Your task to perform on an android device: Go to location settings Image 0: 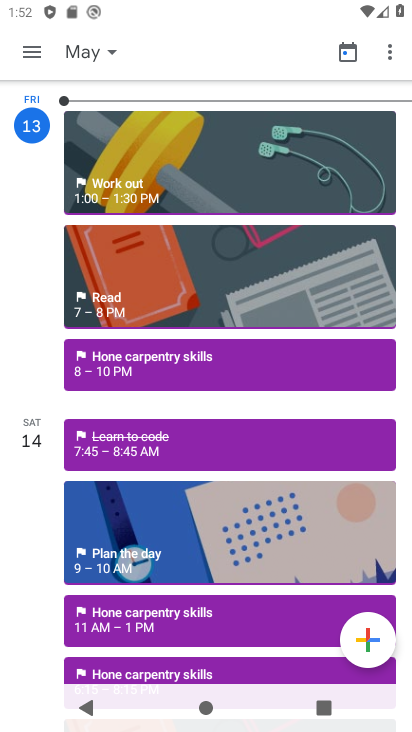
Step 0: press home button
Your task to perform on an android device: Go to location settings Image 1: 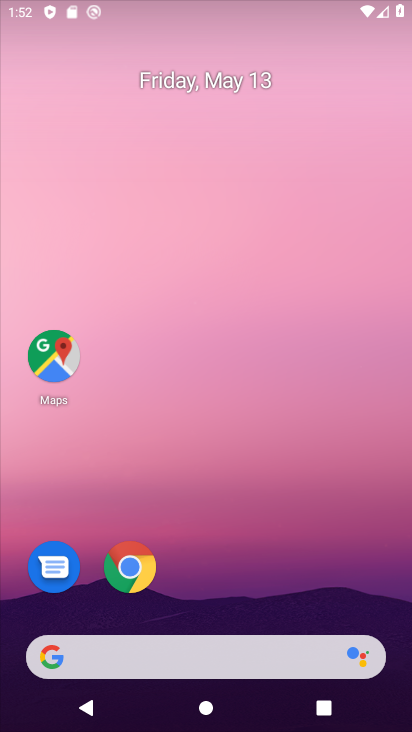
Step 1: drag from (165, 205) to (166, 114)
Your task to perform on an android device: Go to location settings Image 2: 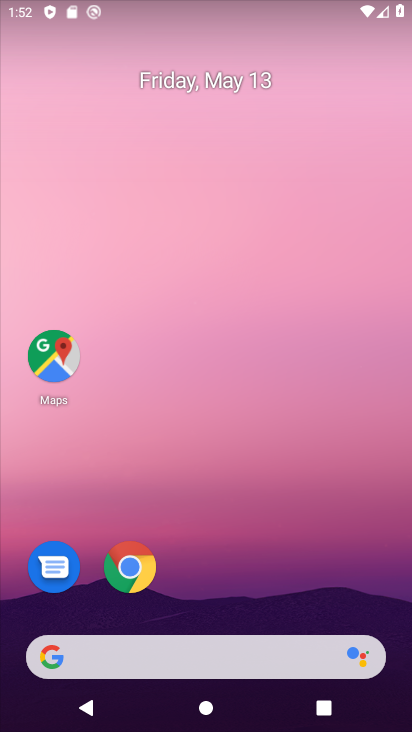
Step 2: drag from (296, 565) to (270, 48)
Your task to perform on an android device: Go to location settings Image 3: 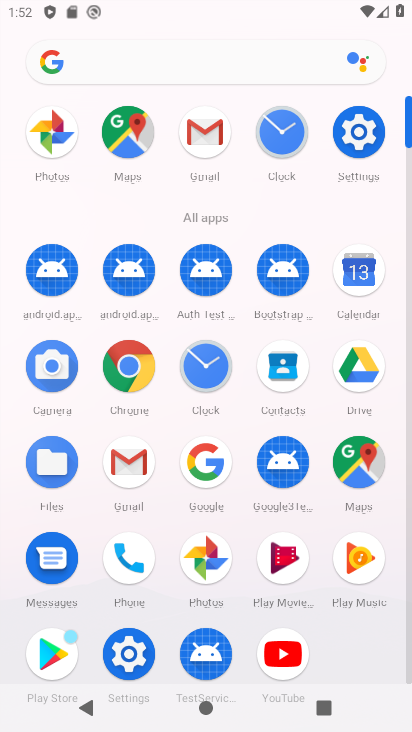
Step 3: click (345, 128)
Your task to perform on an android device: Go to location settings Image 4: 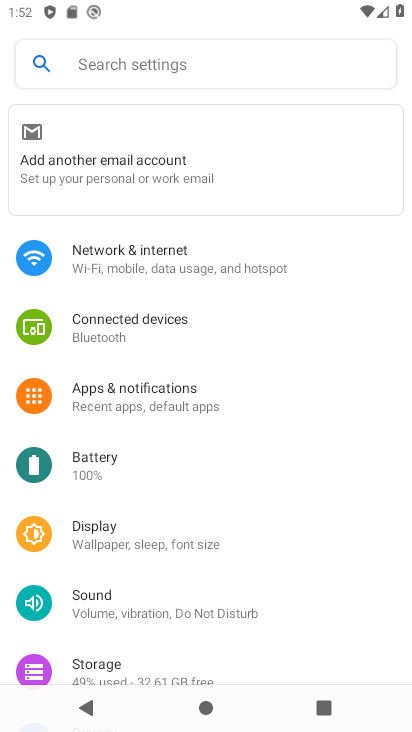
Step 4: drag from (119, 592) to (134, 235)
Your task to perform on an android device: Go to location settings Image 5: 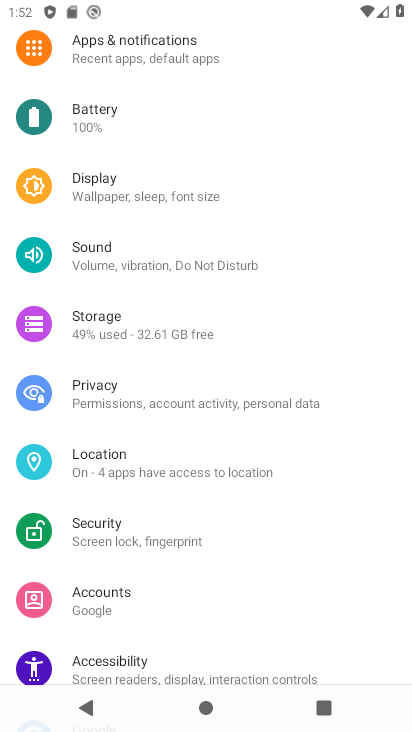
Step 5: click (89, 470)
Your task to perform on an android device: Go to location settings Image 6: 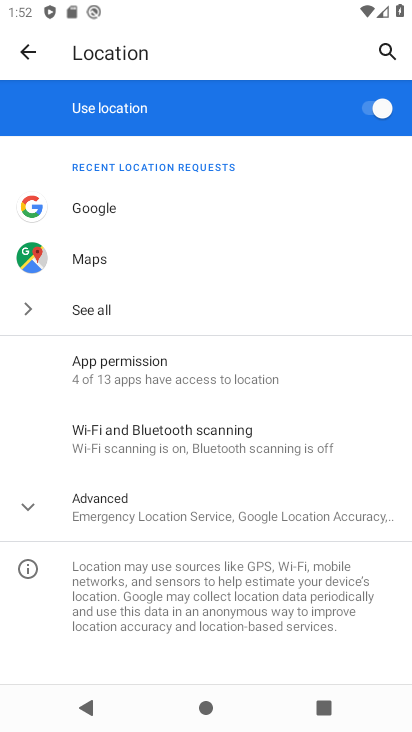
Step 6: task complete